Your task to perform on an android device: open device folders in google photos Image 0: 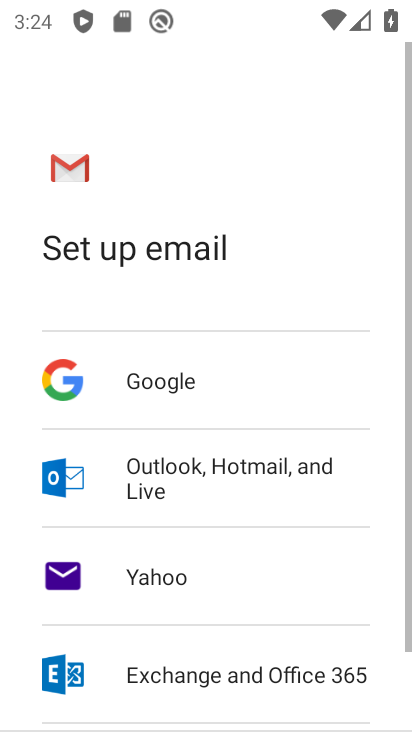
Step 0: press home button
Your task to perform on an android device: open device folders in google photos Image 1: 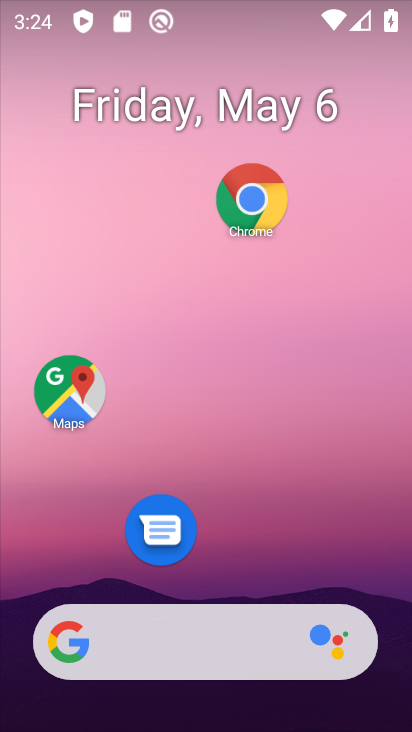
Step 1: drag from (304, 659) to (266, 159)
Your task to perform on an android device: open device folders in google photos Image 2: 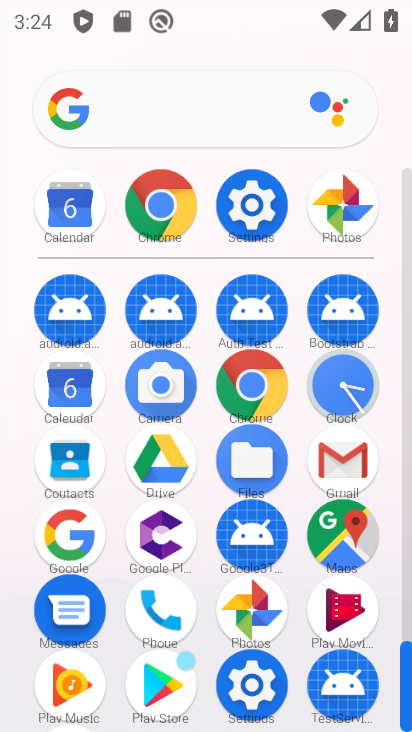
Step 2: click (405, 395)
Your task to perform on an android device: open device folders in google photos Image 3: 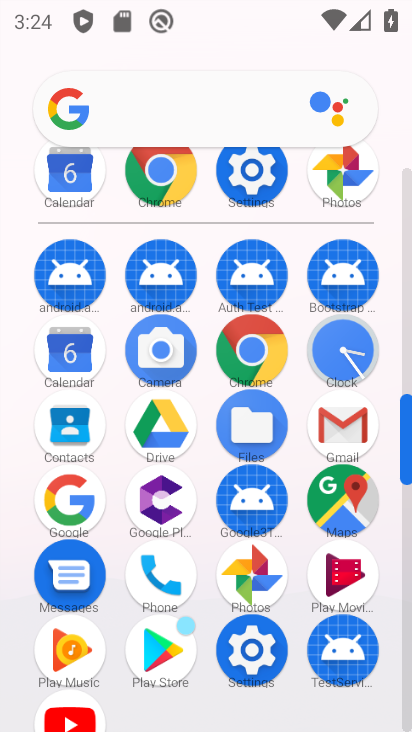
Step 3: click (245, 565)
Your task to perform on an android device: open device folders in google photos Image 4: 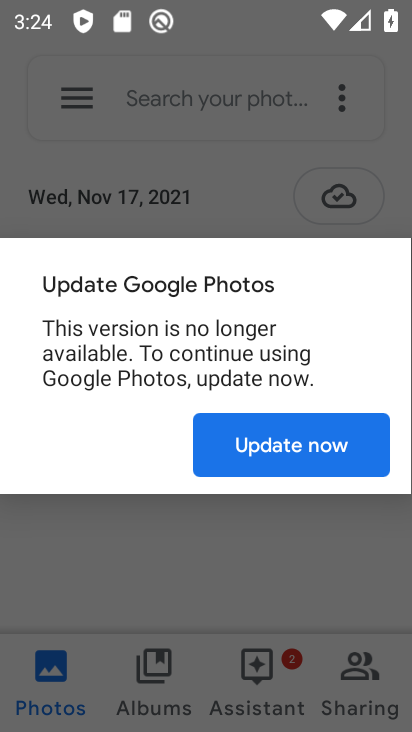
Step 4: task complete